Your task to perform on an android device: Open Google Chrome and click the shortcut for Amazon.com Image 0: 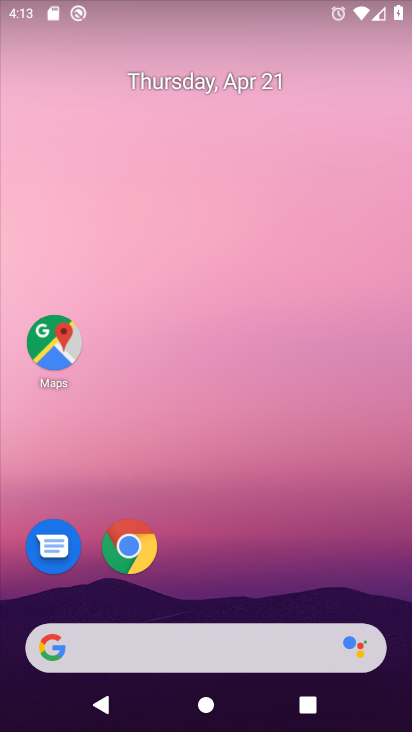
Step 0: click (141, 546)
Your task to perform on an android device: Open Google Chrome and click the shortcut for Amazon.com Image 1: 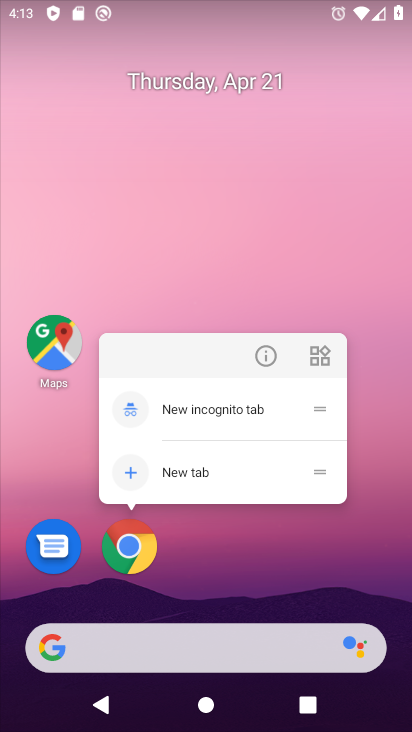
Step 1: click (136, 546)
Your task to perform on an android device: Open Google Chrome and click the shortcut for Amazon.com Image 2: 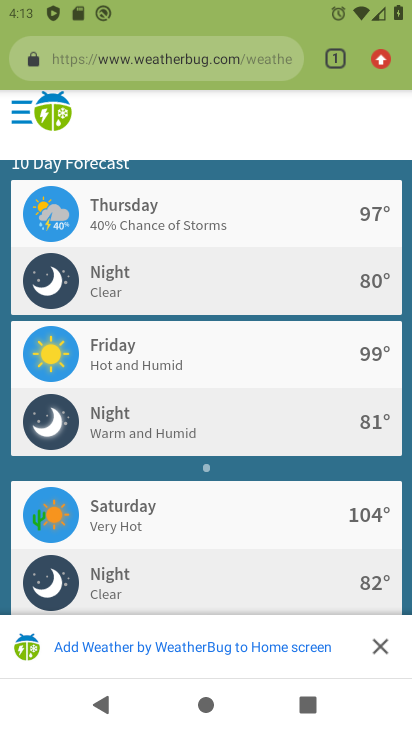
Step 2: click (251, 55)
Your task to perform on an android device: Open Google Chrome and click the shortcut for Amazon.com Image 3: 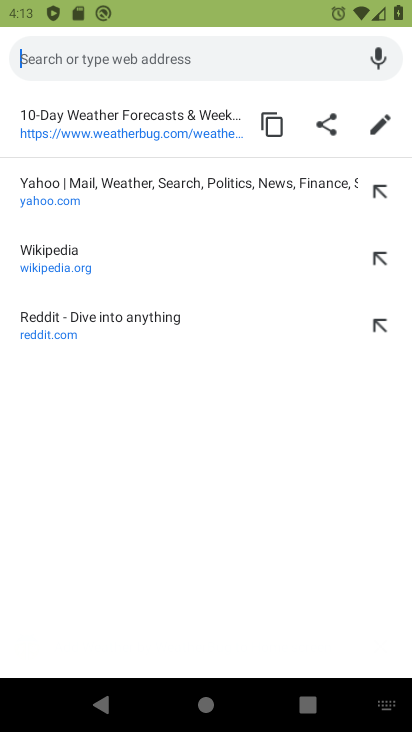
Step 3: type "amazon.com"
Your task to perform on an android device: Open Google Chrome and click the shortcut for Amazon.com Image 4: 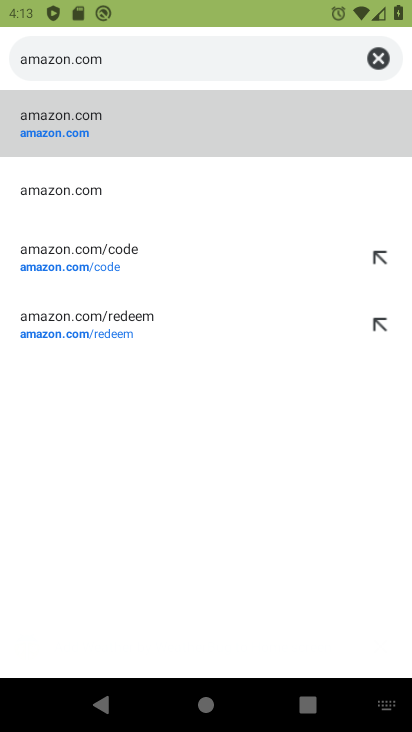
Step 4: click (165, 111)
Your task to perform on an android device: Open Google Chrome and click the shortcut for Amazon.com Image 5: 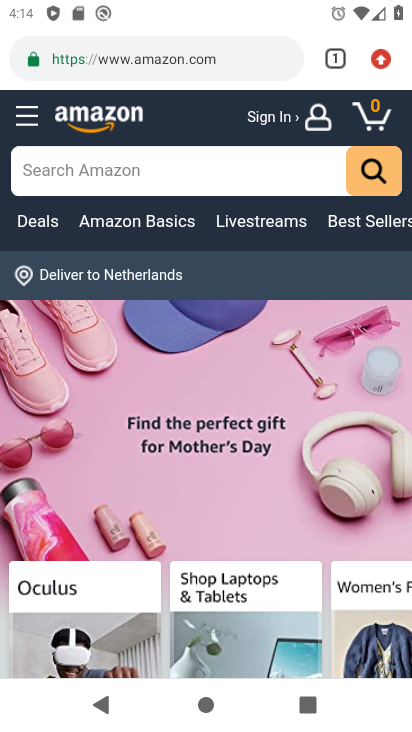
Step 5: task complete